Your task to perform on an android device: open a bookmark in the chrome app Image 0: 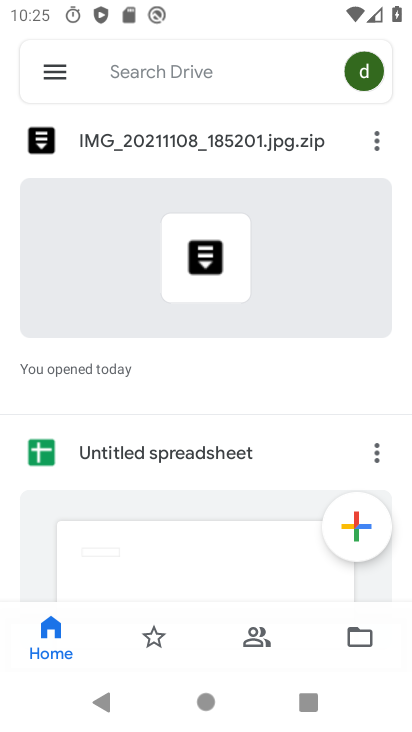
Step 0: press home button
Your task to perform on an android device: open a bookmark in the chrome app Image 1: 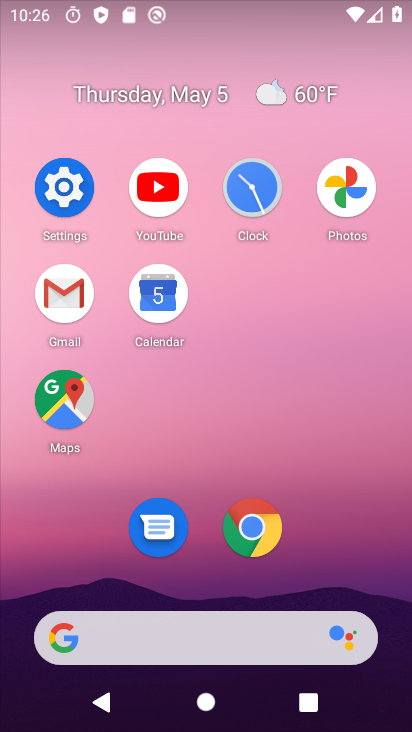
Step 1: click (261, 524)
Your task to perform on an android device: open a bookmark in the chrome app Image 2: 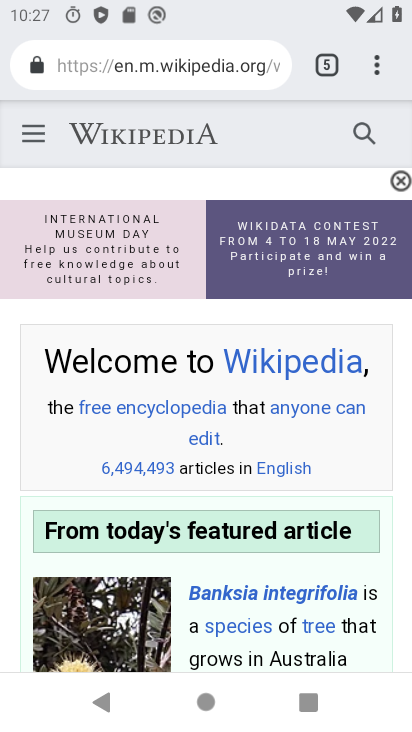
Step 2: click (370, 77)
Your task to perform on an android device: open a bookmark in the chrome app Image 3: 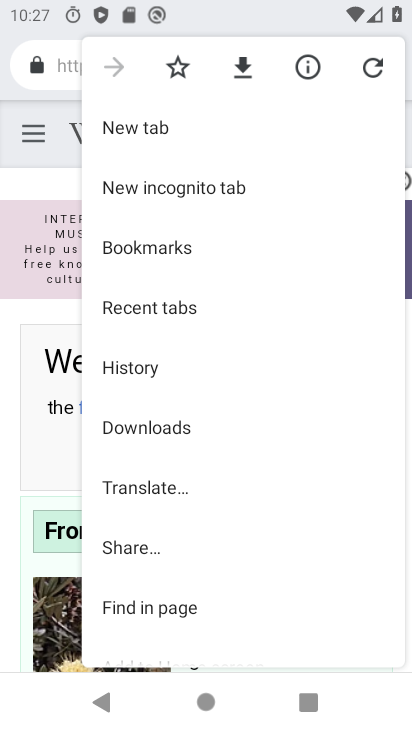
Step 3: click (224, 247)
Your task to perform on an android device: open a bookmark in the chrome app Image 4: 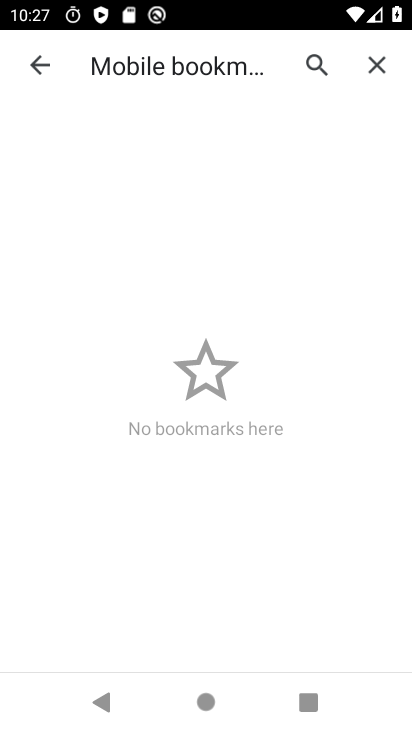
Step 4: task complete